Your task to perform on an android device: toggle airplane mode Image 0: 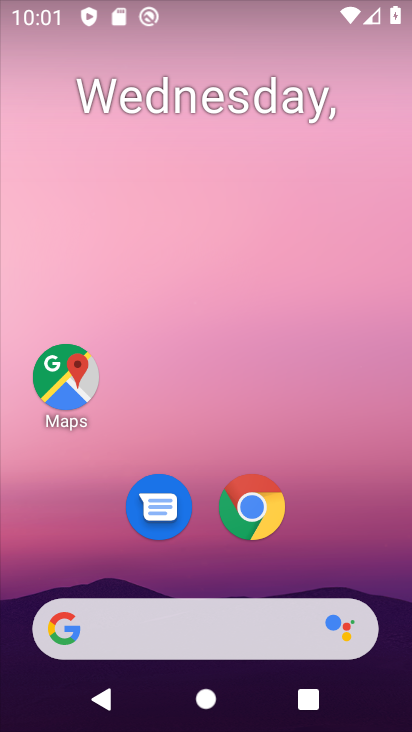
Step 0: drag from (241, 662) to (249, 157)
Your task to perform on an android device: toggle airplane mode Image 1: 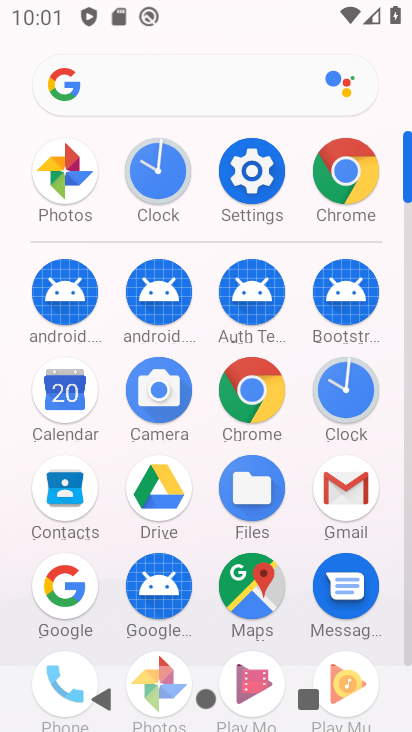
Step 1: click (232, 171)
Your task to perform on an android device: toggle airplane mode Image 2: 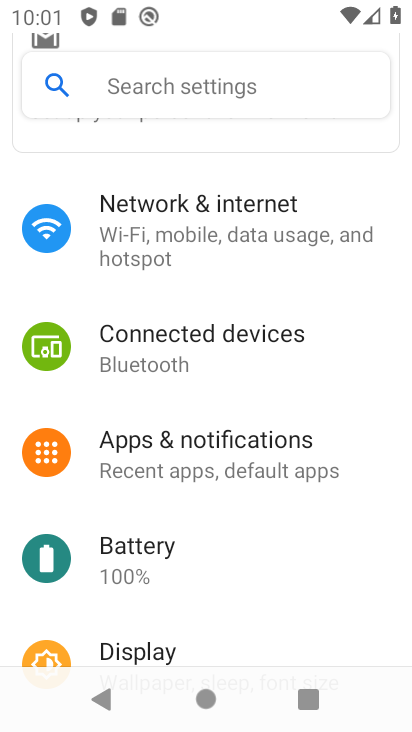
Step 2: click (150, 220)
Your task to perform on an android device: toggle airplane mode Image 3: 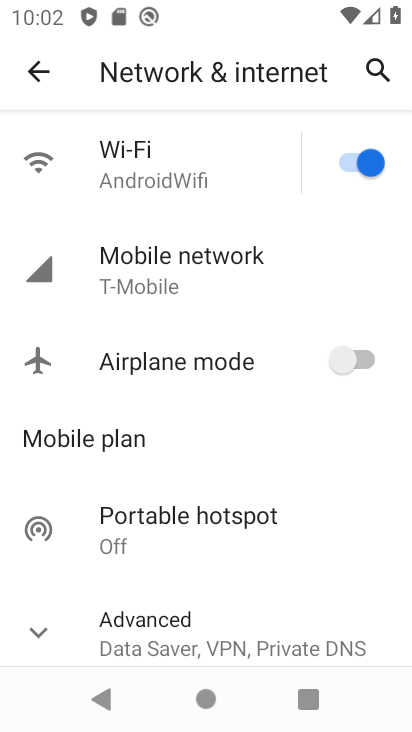
Step 3: click (160, 367)
Your task to perform on an android device: toggle airplane mode Image 4: 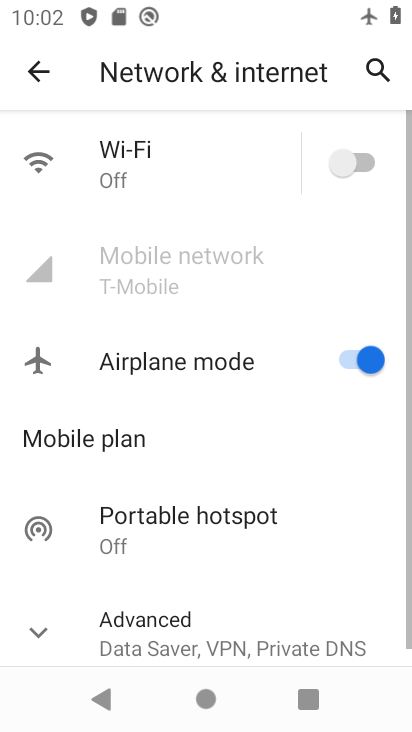
Step 4: click (162, 358)
Your task to perform on an android device: toggle airplane mode Image 5: 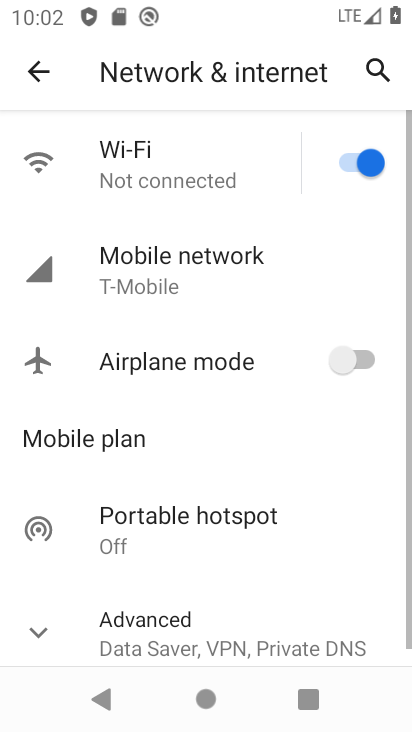
Step 5: task complete